Your task to perform on an android device: What are the best selling refrigerators at Home Depot? Image 0: 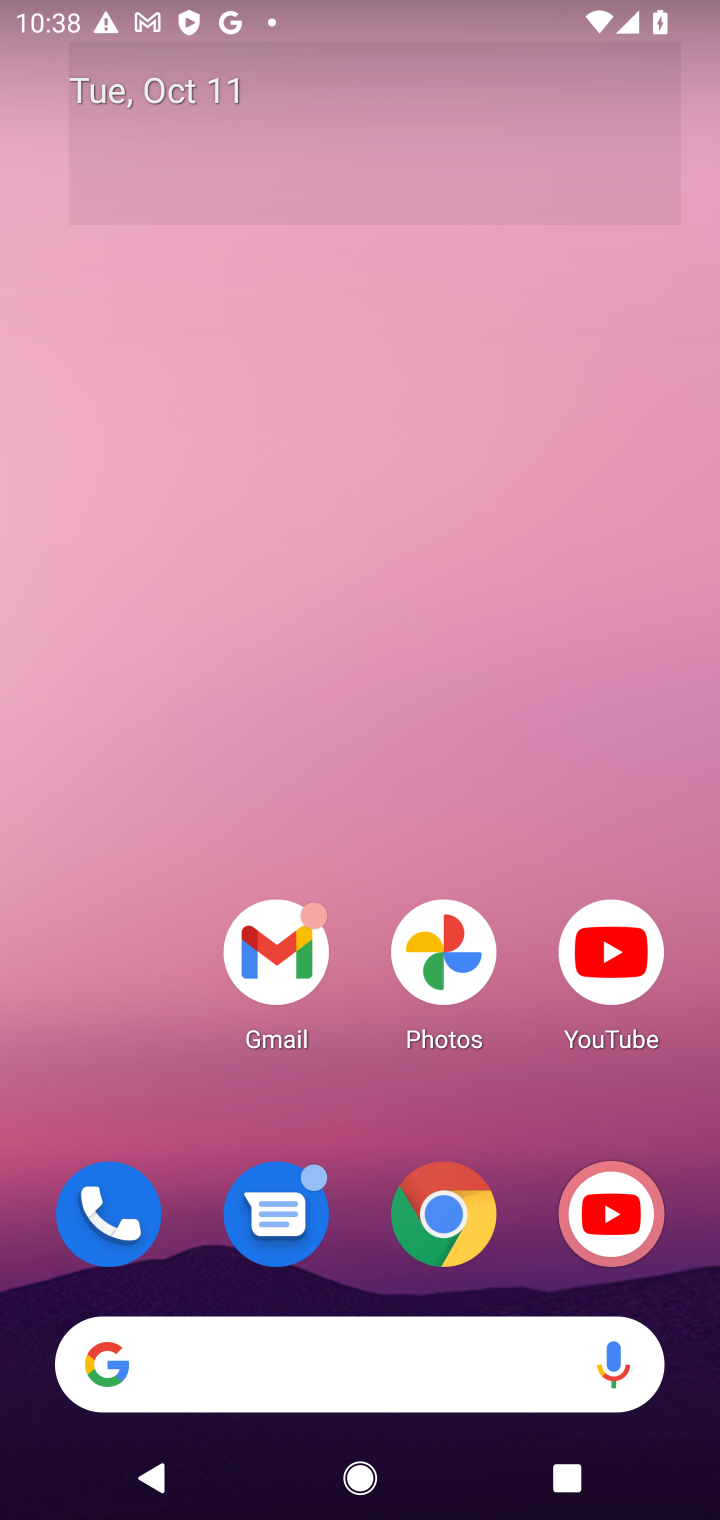
Step 0: drag from (330, 1049) to (314, 165)
Your task to perform on an android device: What are the best selling refrigerators at Home Depot? Image 1: 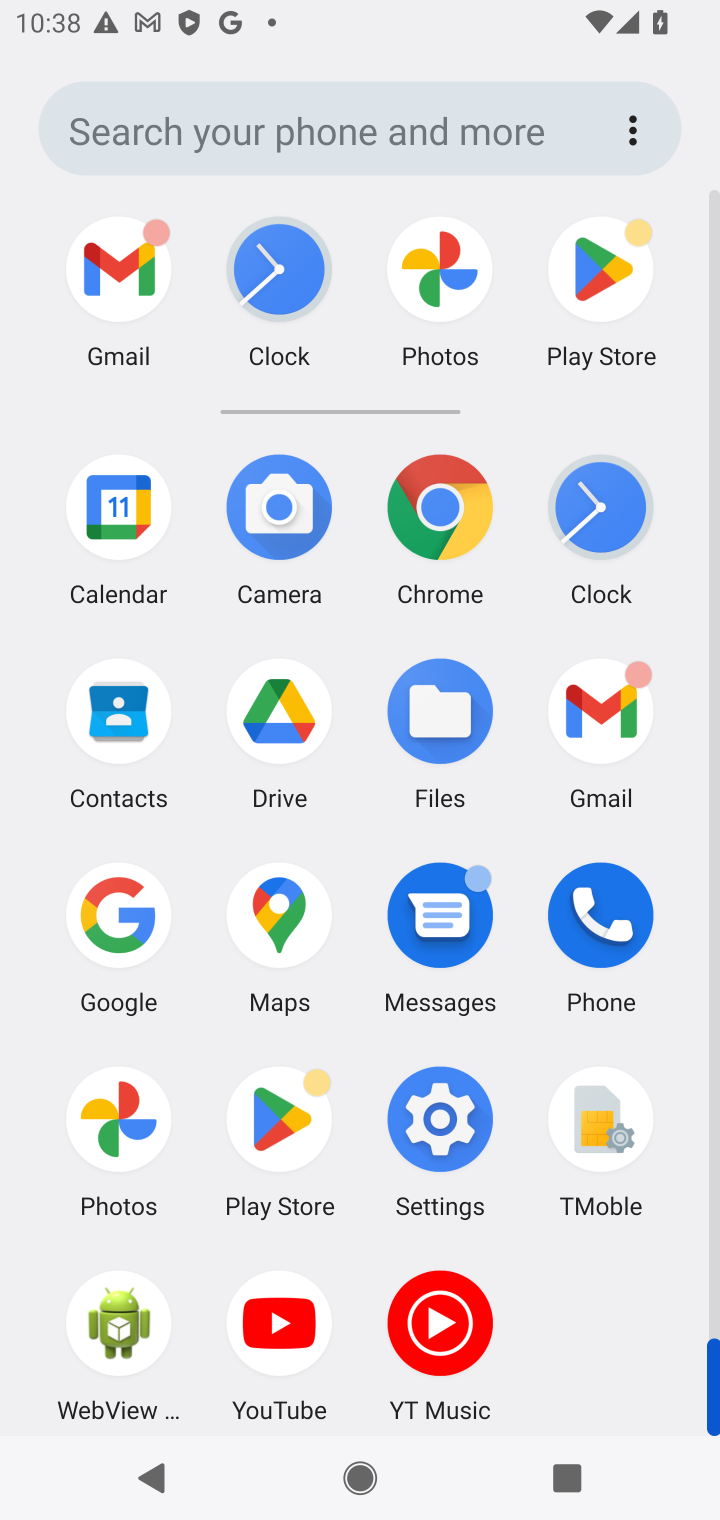
Step 1: click (454, 506)
Your task to perform on an android device: What are the best selling refrigerators at Home Depot? Image 2: 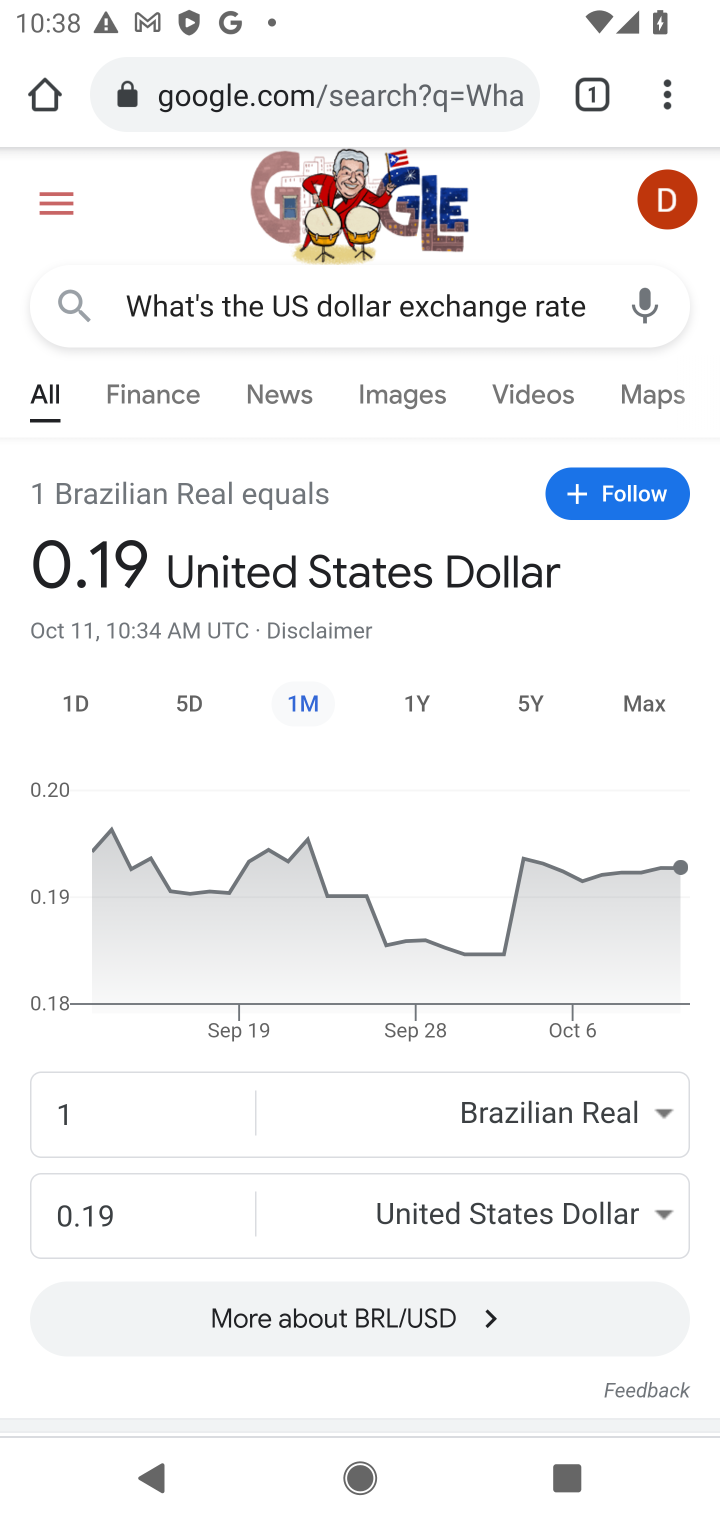
Step 2: click (298, 105)
Your task to perform on an android device: What are the best selling refrigerators at Home Depot? Image 3: 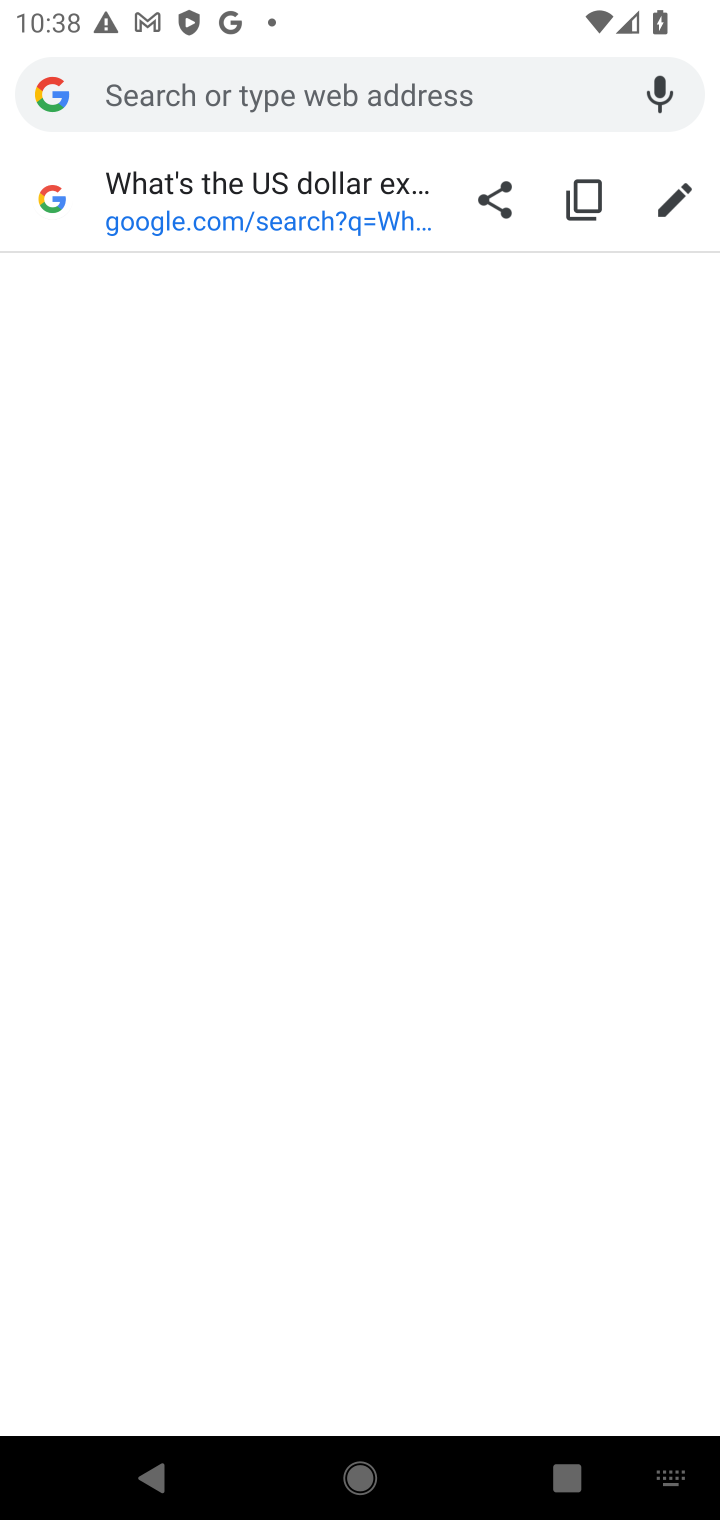
Step 3: type "best selling refrigerators at Home depot ?"
Your task to perform on an android device: What are the best selling refrigerators at Home Depot? Image 4: 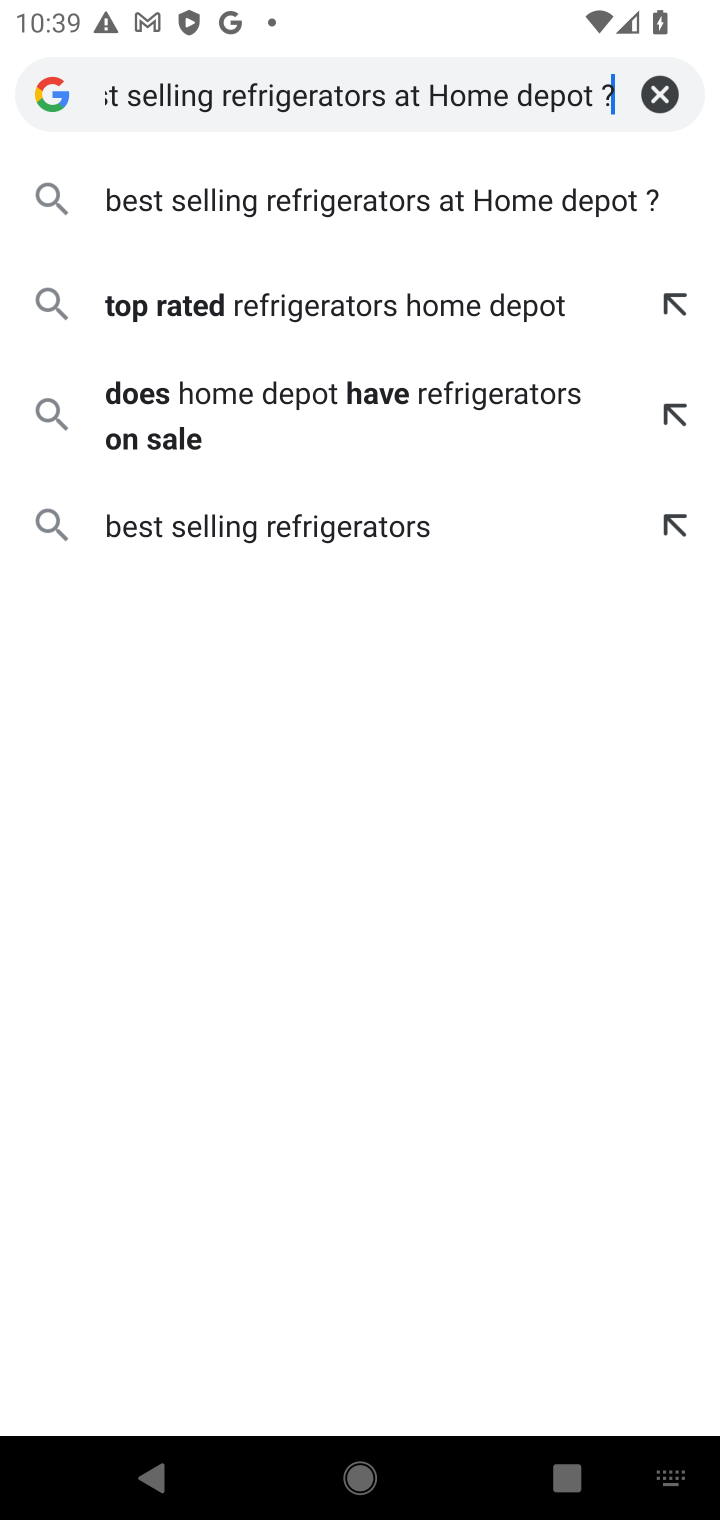
Step 4: press enter
Your task to perform on an android device: What are the best selling refrigerators at Home Depot? Image 5: 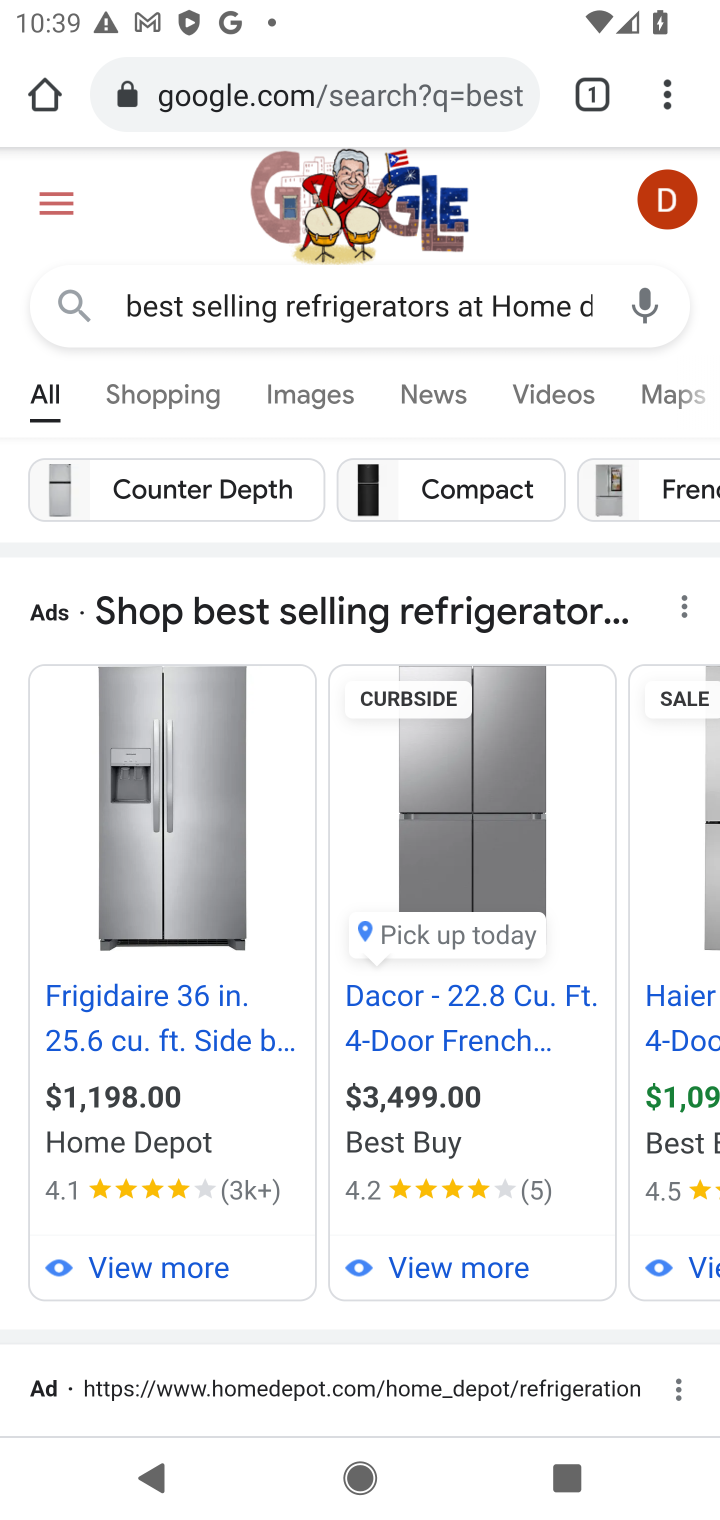
Step 5: drag from (482, 1151) to (373, 473)
Your task to perform on an android device: What are the best selling refrigerators at Home Depot? Image 6: 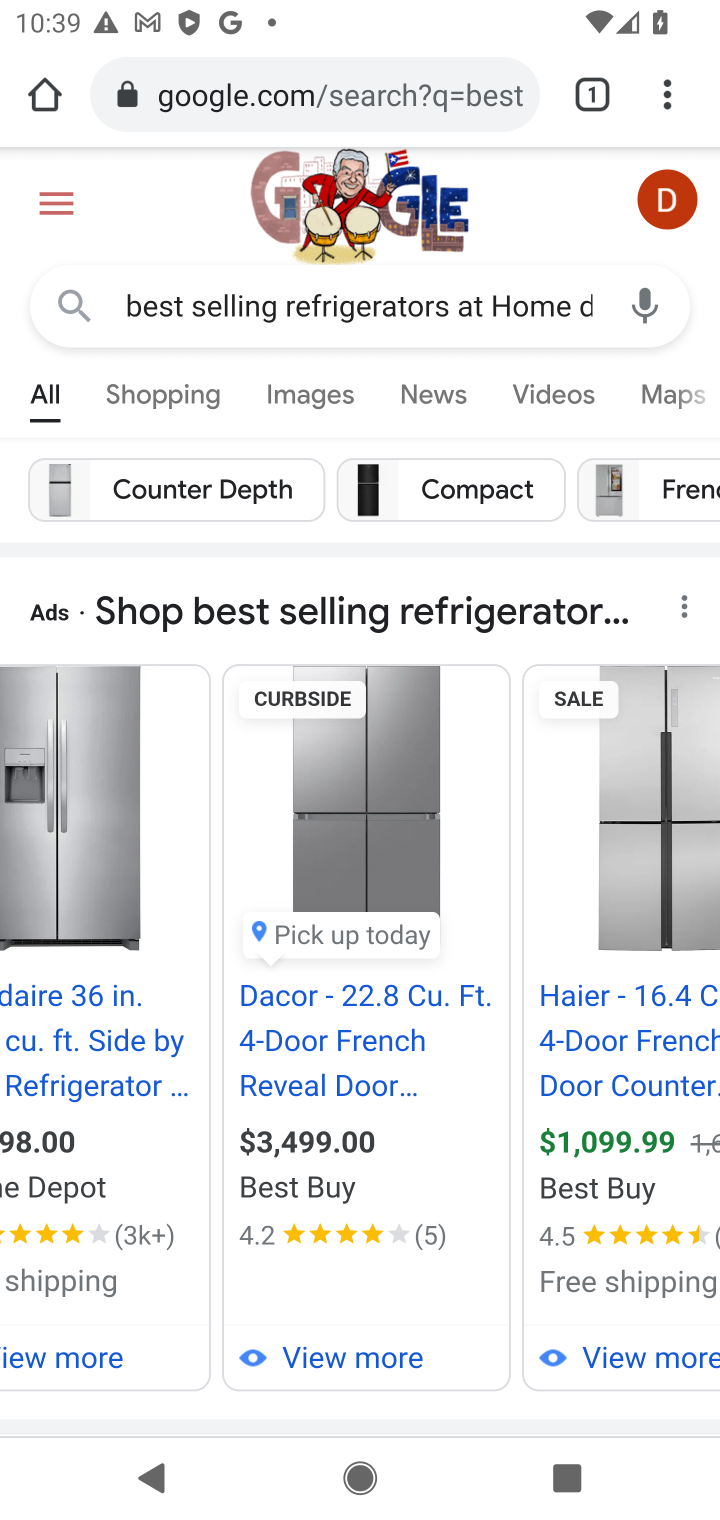
Step 6: drag from (170, 1139) to (479, 357)
Your task to perform on an android device: What are the best selling refrigerators at Home Depot? Image 7: 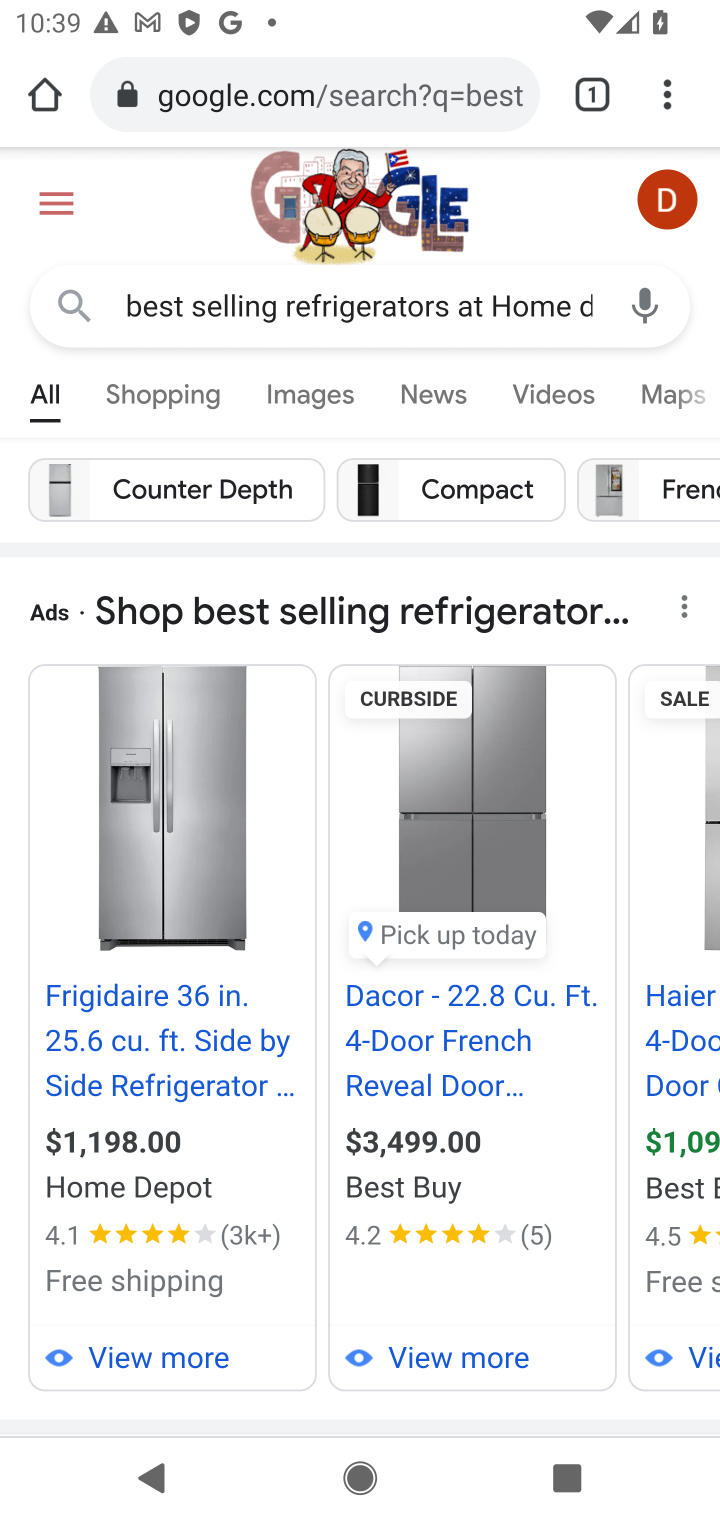
Step 7: drag from (419, 1405) to (454, 250)
Your task to perform on an android device: What are the best selling refrigerators at Home Depot? Image 8: 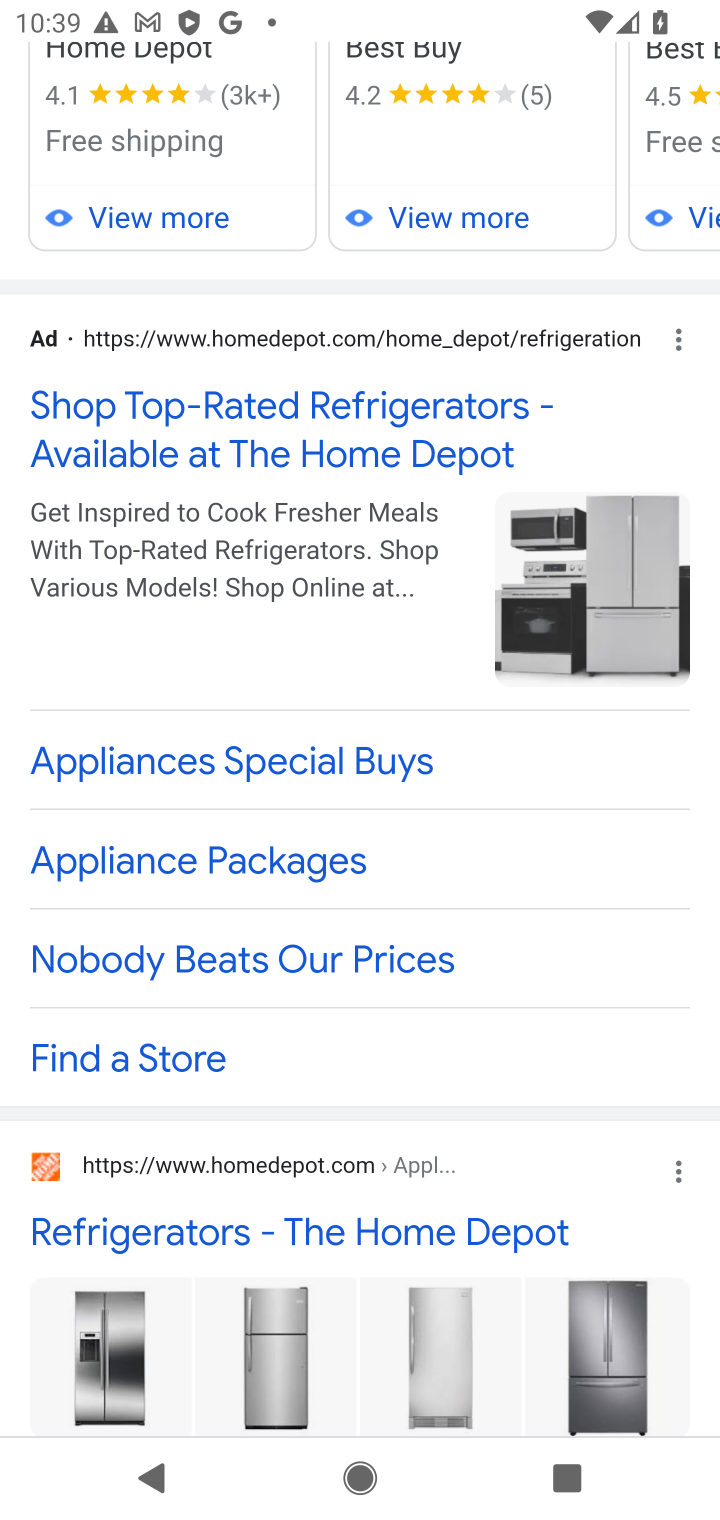
Step 8: drag from (267, 1170) to (435, 367)
Your task to perform on an android device: What are the best selling refrigerators at Home Depot? Image 9: 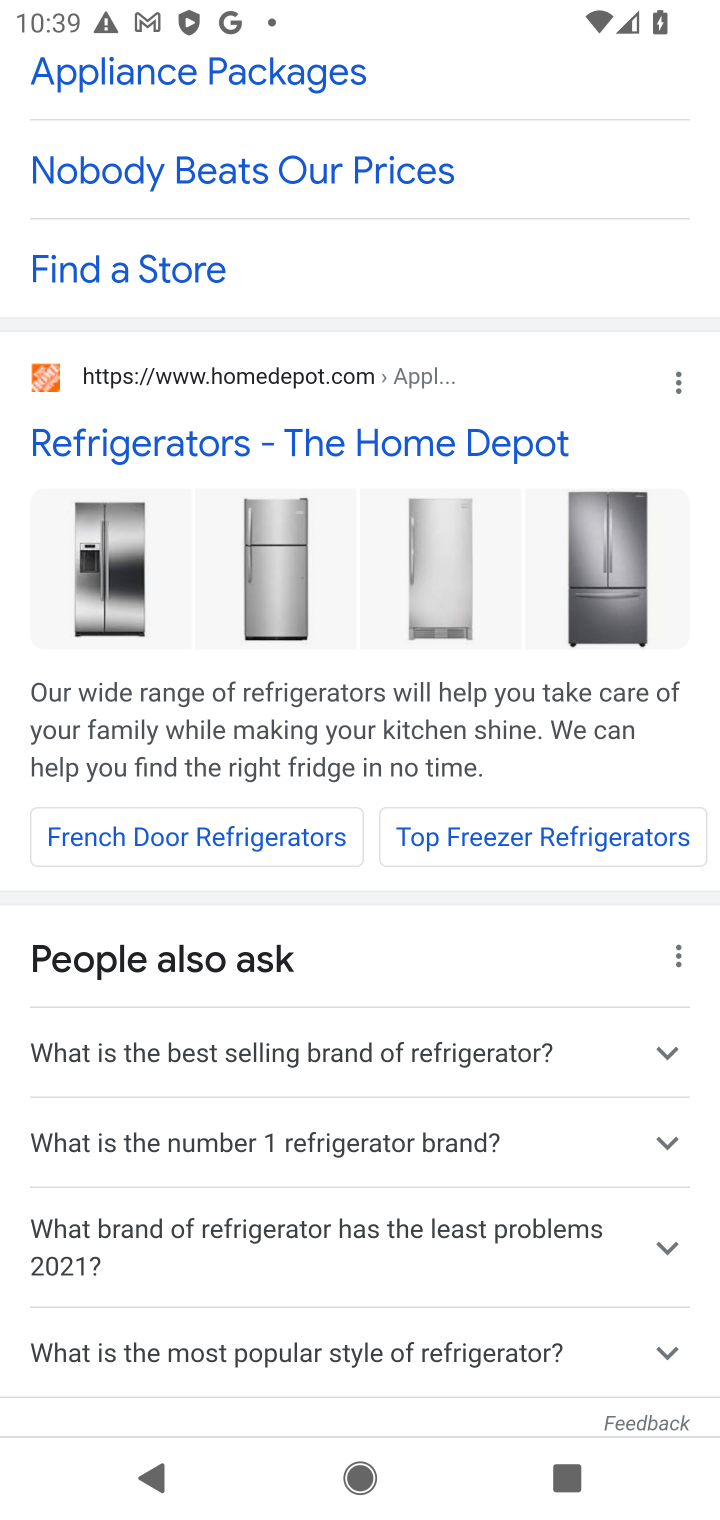
Step 9: click (264, 445)
Your task to perform on an android device: What are the best selling refrigerators at Home Depot? Image 10: 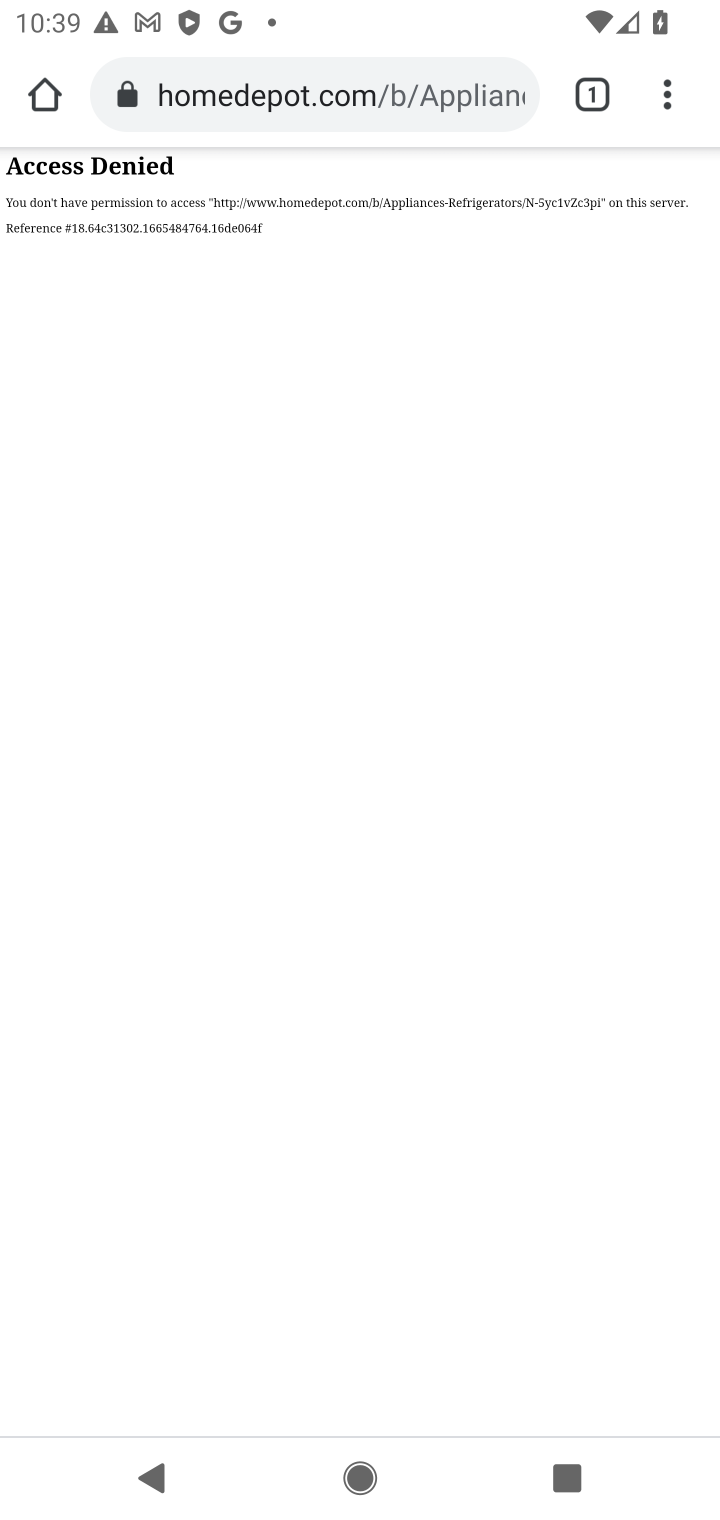
Step 10: task complete